Your task to perform on an android device: Search for Mexican restaurants on Maps Image 0: 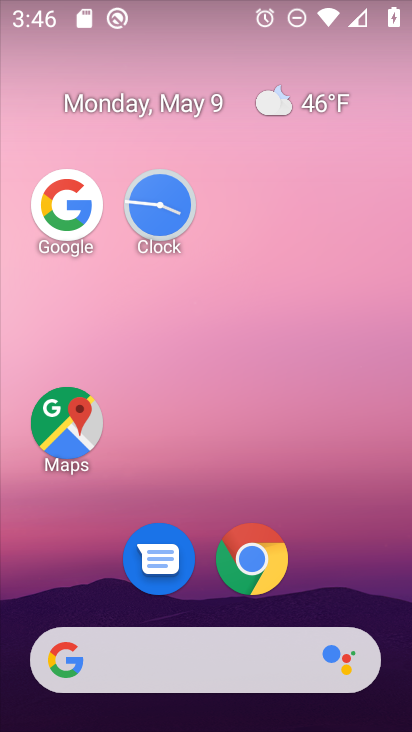
Step 0: click (65, 438)
Your task to perform on an android device: Search for Mexican restaurants on Maps Image 1: 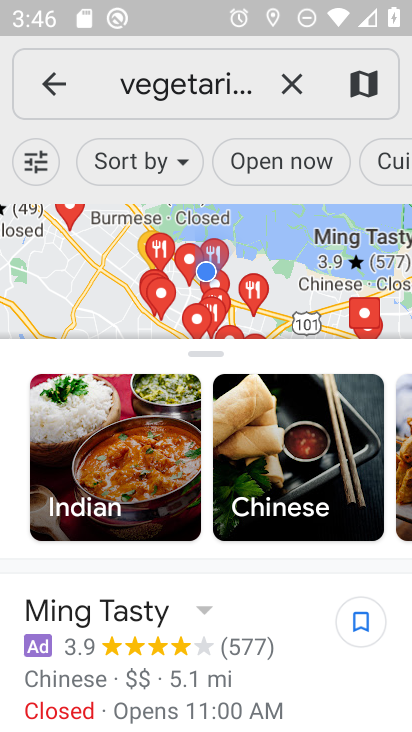
Step 1: click (293, 81)
Your task to perform on an android device: Search for Mexican restaurants on Maps Image 2: 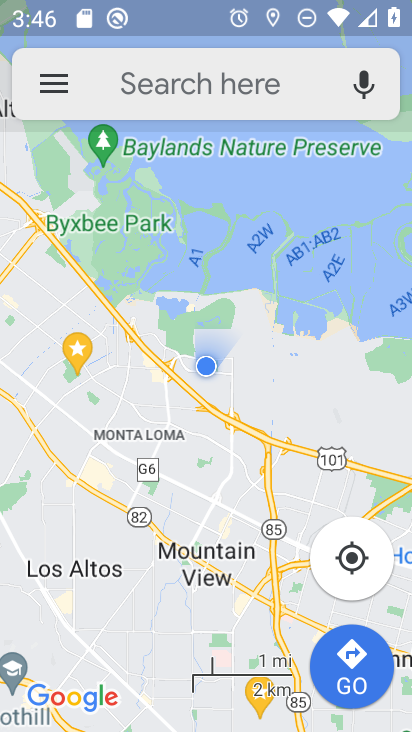
Step 2: click (204, 80)
Your task to perform on an android device: Search for Mexican restaurants on Maps Image 3: 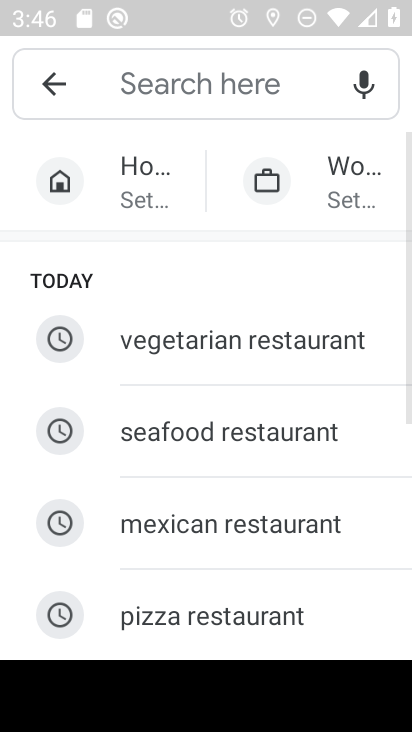
Step 3: click (224, 527)
Your task to perform on an android device: Search for Mexican restaurants on Maps Image 4: 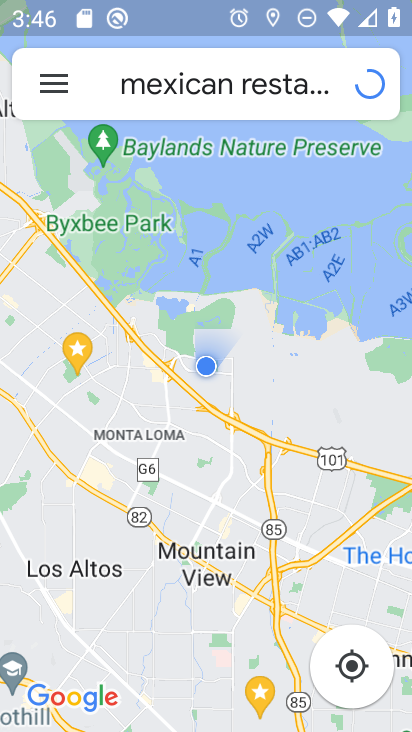
Step 4: task complete